Your task to perform on an android device: find snoozed emails in the gmail app Image 0: 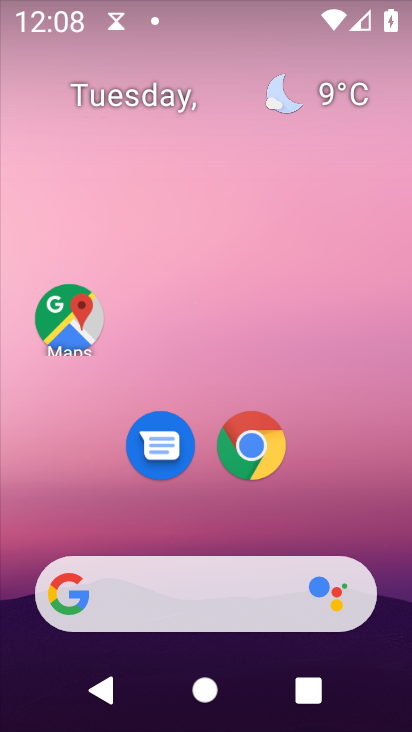
Step 0: drag from (290, 608) to (248, 111)
Your task to perform on an android device: find snoozed emails in the gmail app Image 1: 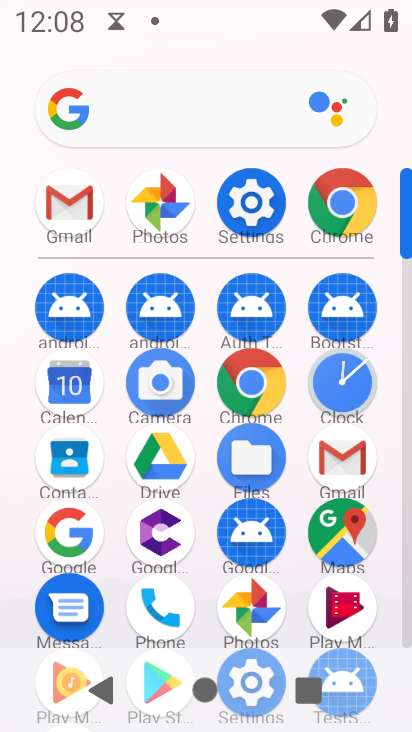
Step 1: click (340, 471)
Your task to perform on an android device: find snoozed emails in the gmail app Image 2: 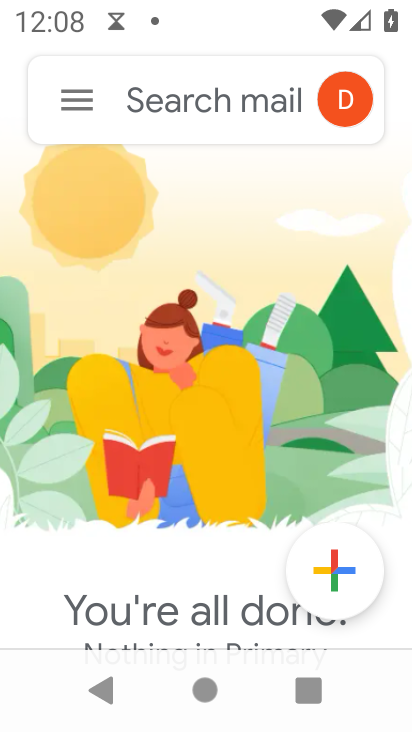
Step 2: click (74, 102)
Your task to perform on an android device: find snoozed emails in the gmail app Image 3: 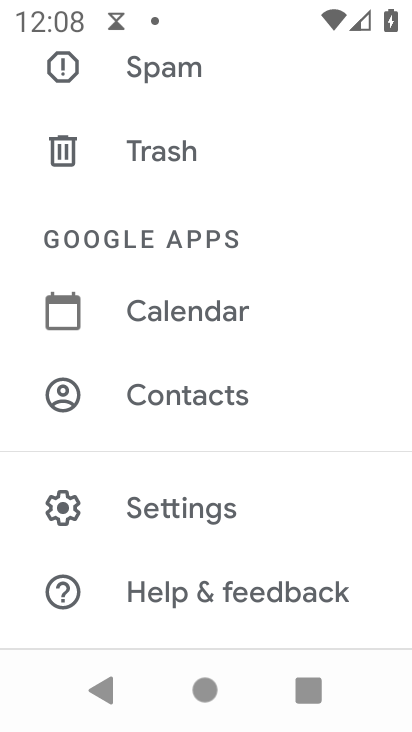
Step 3: drag from (220, 152) to (291, 594)
Your task to perform on an android device: find snoozed emails in the gmail app Image 4: 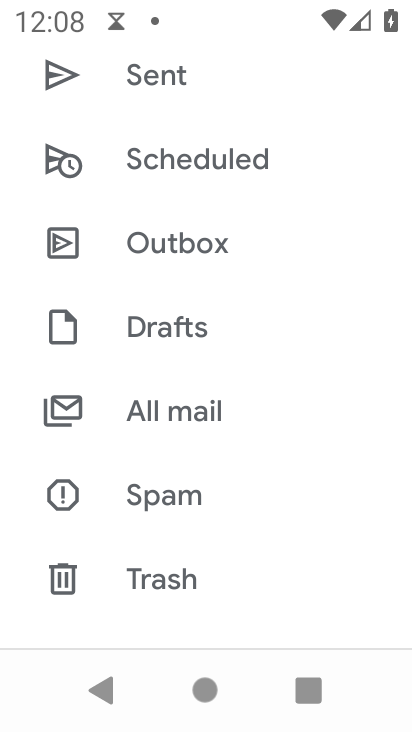
Step 4: drag from (203, 140) to (284, 590)
Your task to perform on an android device: find snoozed emails in the gmail app Image 5: 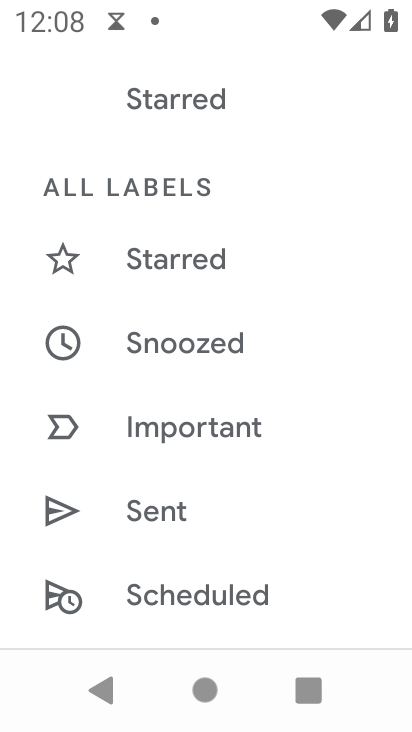
Step 5: click (186, 357)
Your task to perform on an android device: find snoozed emails in the gmail app Image 6: 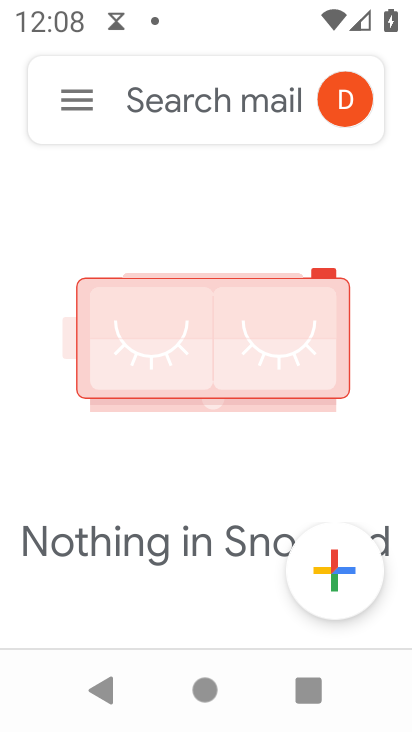
Step 6: task complete